Your task to perform on an android device: Open the web browser Image 0: 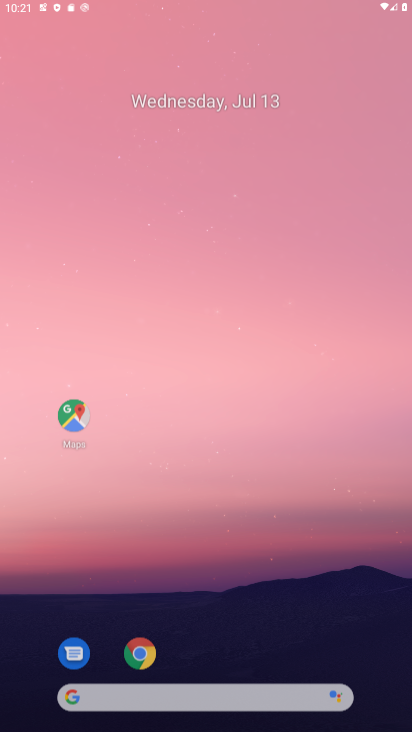
Step 0: press back button
Your task to perform on an android device: Open the web browser Image 1: 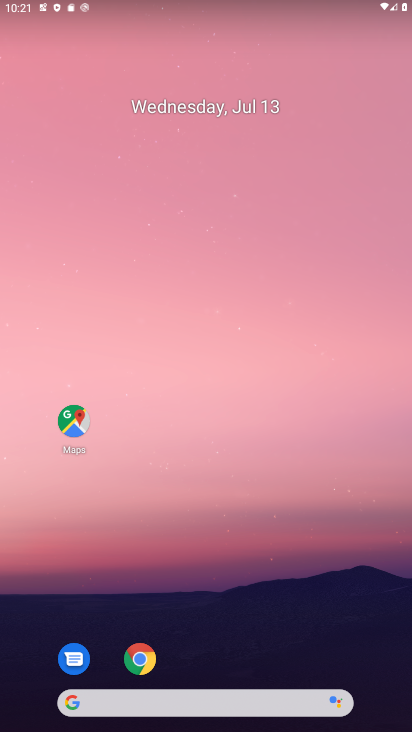
Step 1: click (235, 295)
Your task to perform on an android device: Open the web browser Image 2: 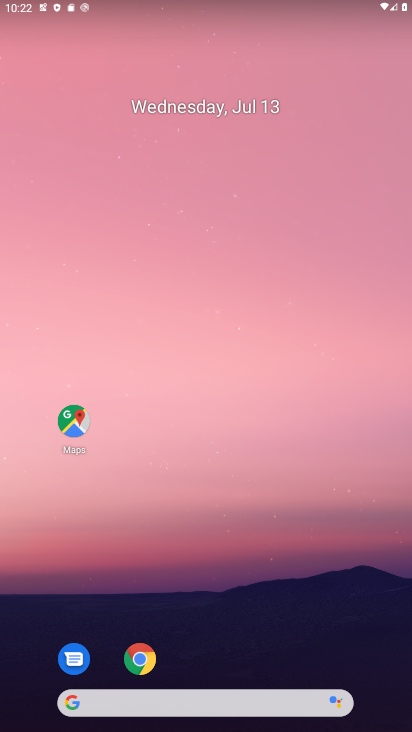
Step 2: drag from (209, 692) to (181, 333)
Your task to perform on an android device: Open the web browser Image 3: 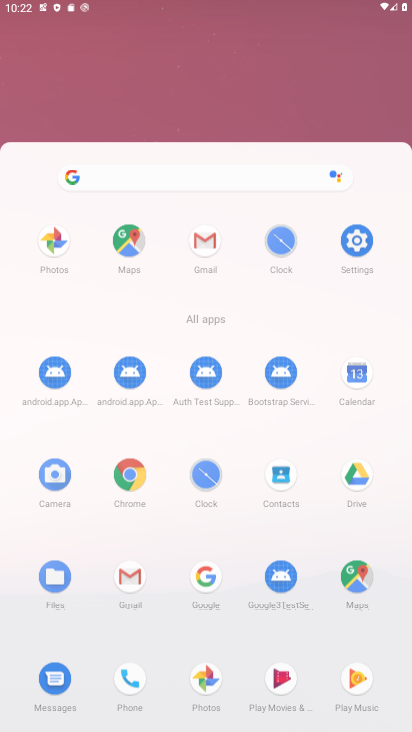
Step 3: drag from (276, 582) to (241, 395)
Your task to perform on an android device: Open the web browser Image 4: 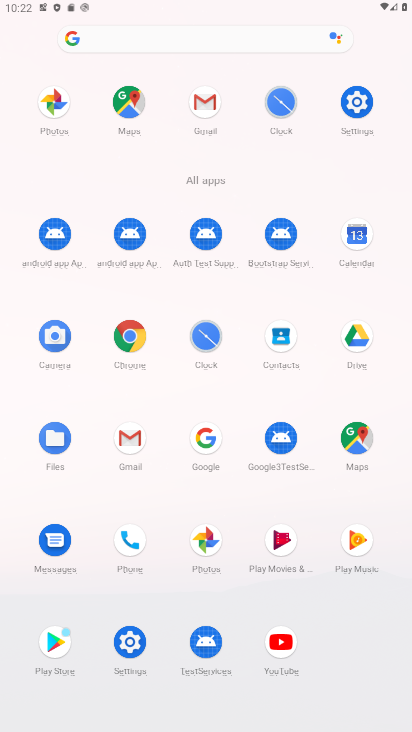
Step 4: click (119, 321)
Your task to perform on an android device: Open the web browser Image 5: 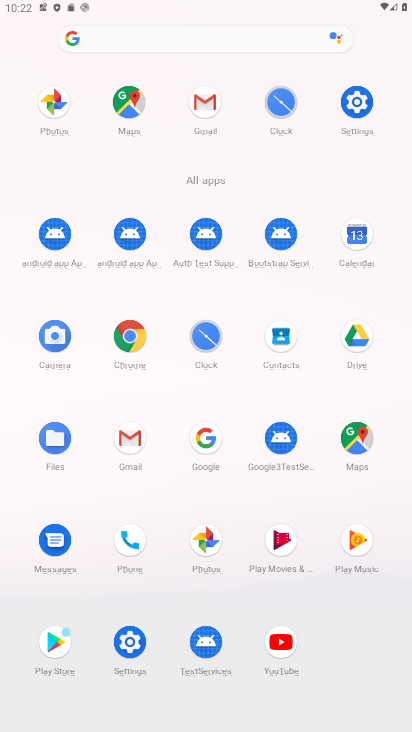
Step 5: click (122, 321)
Your task to perform on an android device: Open the web browser Image 6: 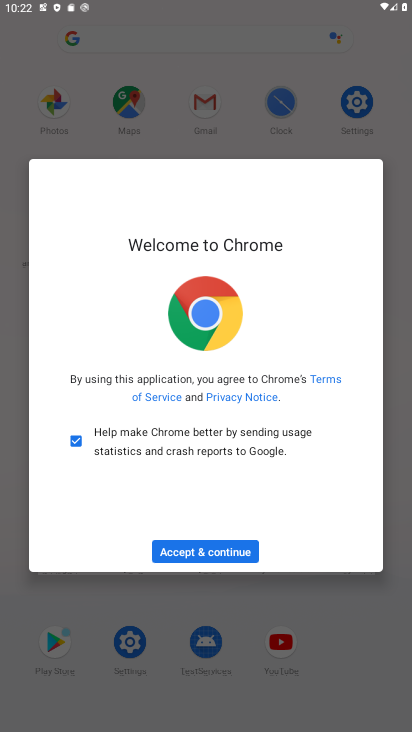
Step 6: click (218, 545)
Your task to perform on an android device: Open the web browser Image 7: 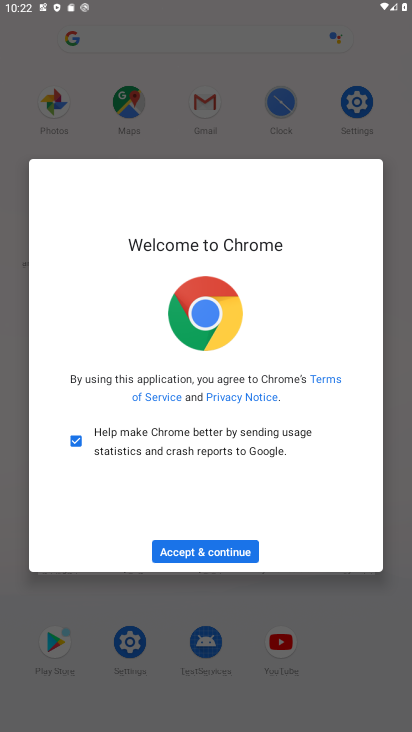
Step 7: click (217, 542)
Your task to perform on an android device: Open the web browser Image 8: 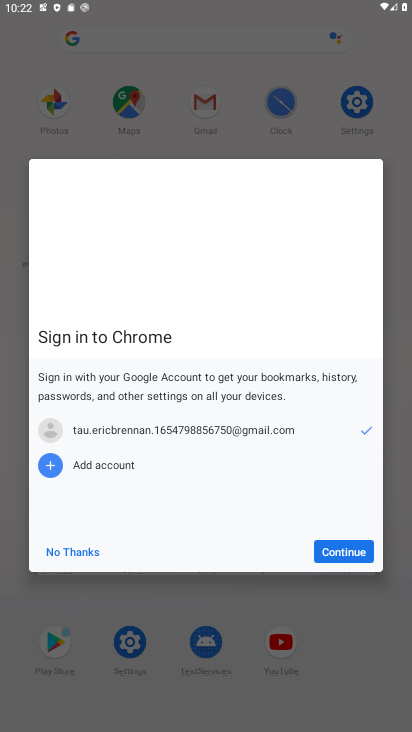
Step 8: click (215, 550)
Your task to perform on an android device: Open the web browser Image 9: 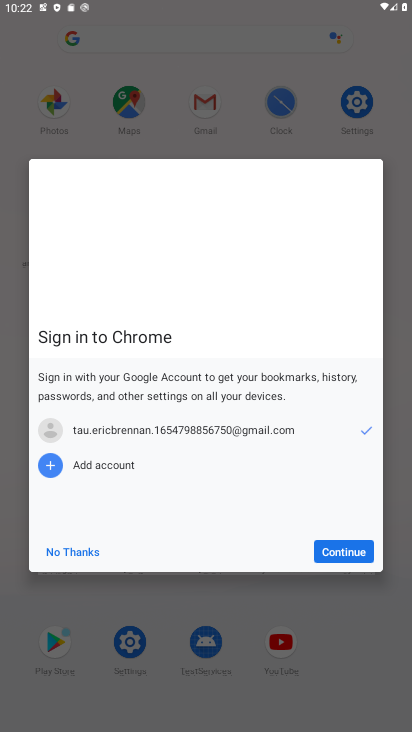
Step 9: click (315, 562)
Your task to perform on an android device: Open the web browser Image 10: 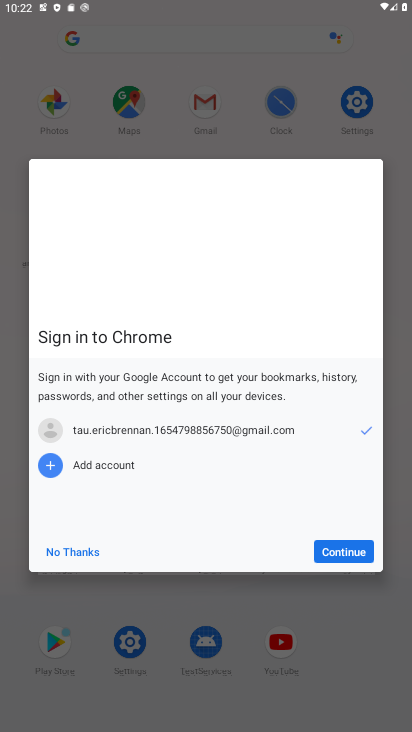
Step 10: click (331, 554)
Your task to perform on an android device: Open the web browser Image 11: 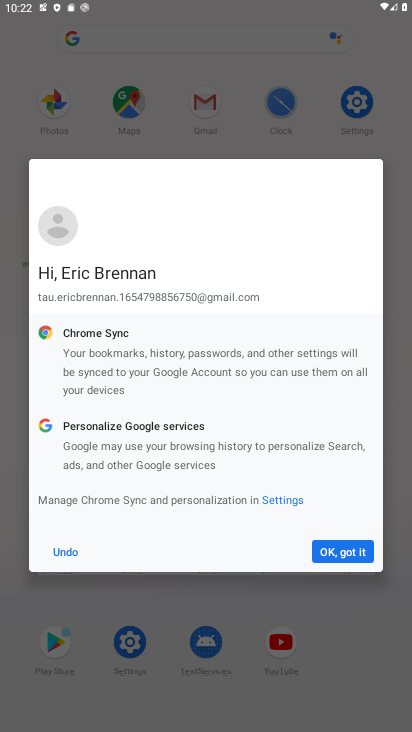
Step 11: click (350, 539)
Your task to perform on an android device: Open the web browser Image 12: 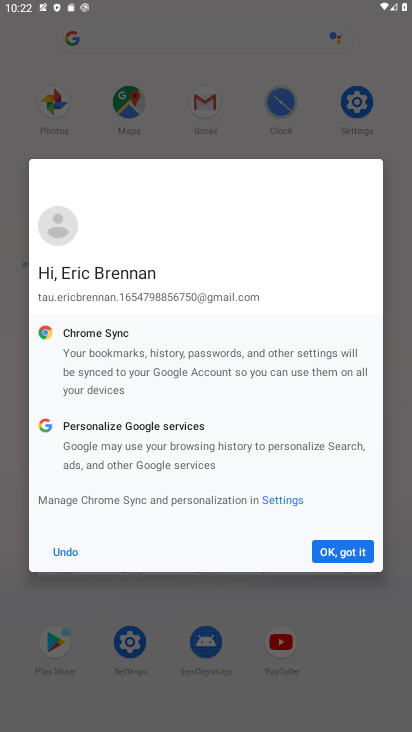
Step 12: click (355, 545)
Your task to perform on an android device: Open the web browser Image 13: 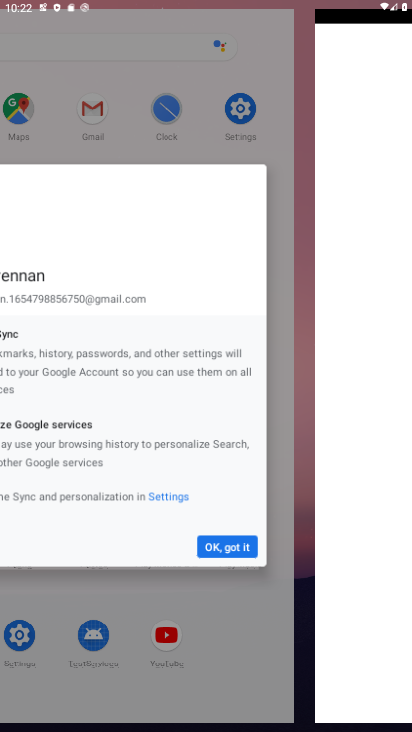
Step 13: click (356, 546)
Your task to perform on an android device: Open the web browser Image 14: 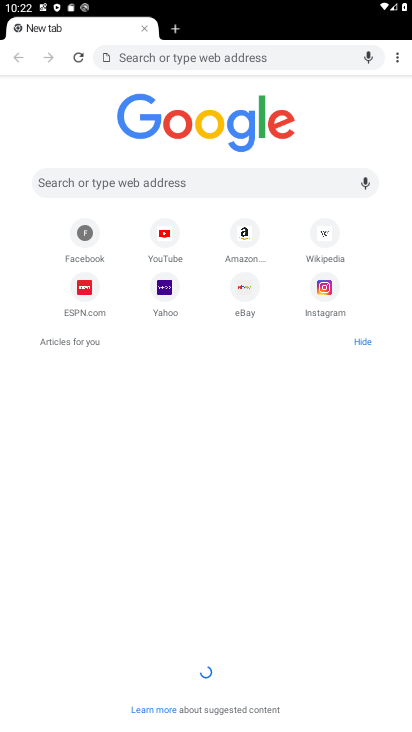
Step 14: task complete